Your task to perform on an android device: Search for pizza restaurants on Maps Image 0: 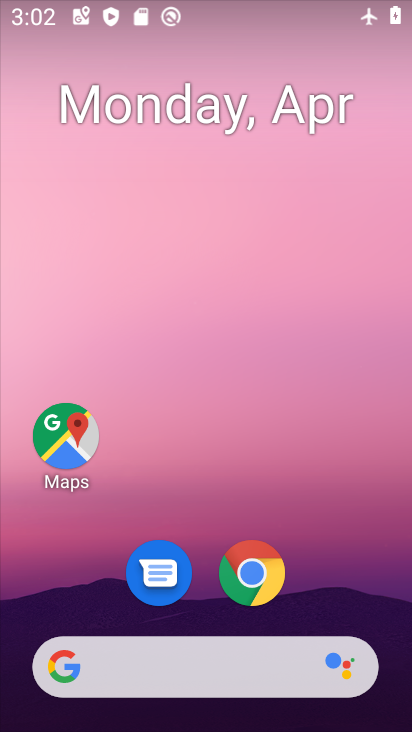
Step 0: drag from (330, 570) to (347, 56)
Your task to perform on an android device: Search for pizza restaurants on Maps Image 1: 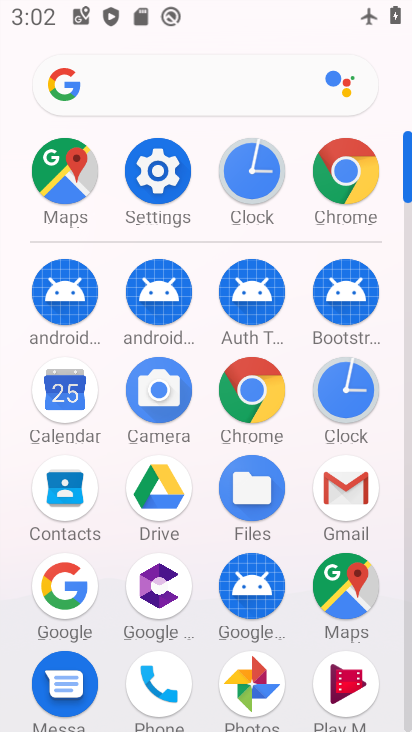
Step 1: click (67, 174)
Your task to perform on an android device: Search for pizza restaurants on Maps Image 2: 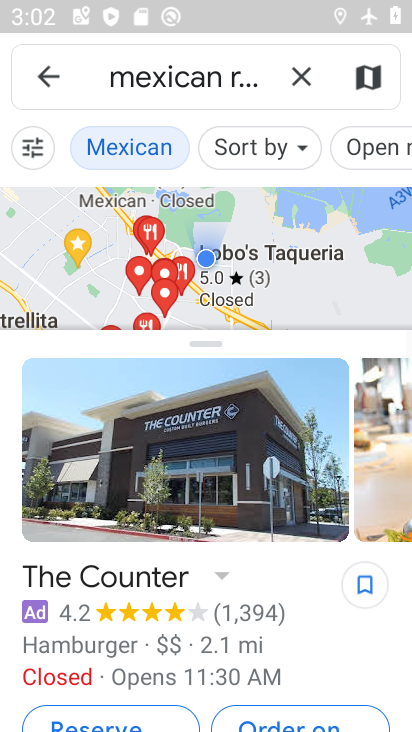
Step 2: click (299, 74)
Your task to perform on an android device: Search for pizza restaurants on Maps Image 3: 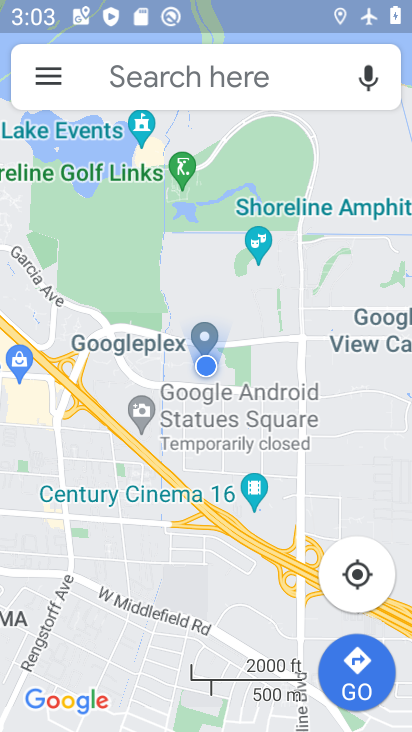
Step 3: click (256, 80)
Your task to perform on an android device: Search for pizza restaurants on Maps Image 4: 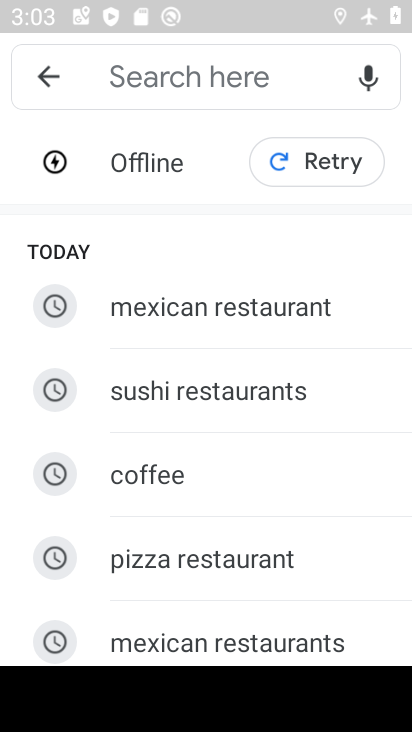
Step 4: type "pizzaa restaurants"
Your task to perform on an android device: Search for pizza restaurants on Maps Image 5: 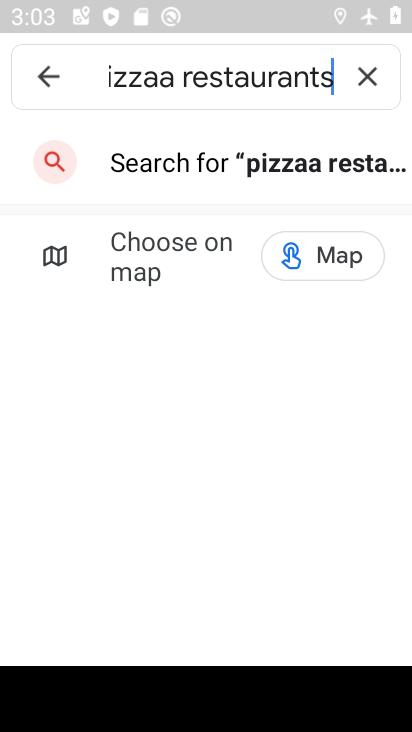
Step 5: click (284, 167)
Your task to perform on an android device: Search for pizza restaurants on Maps Image 6: 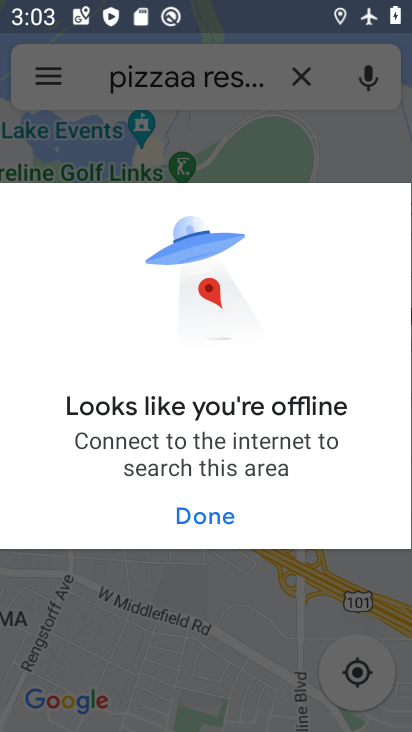
Step 6: task complete